Your task to perform on an android device: Open calendar and show me the third week of next month Image 0: 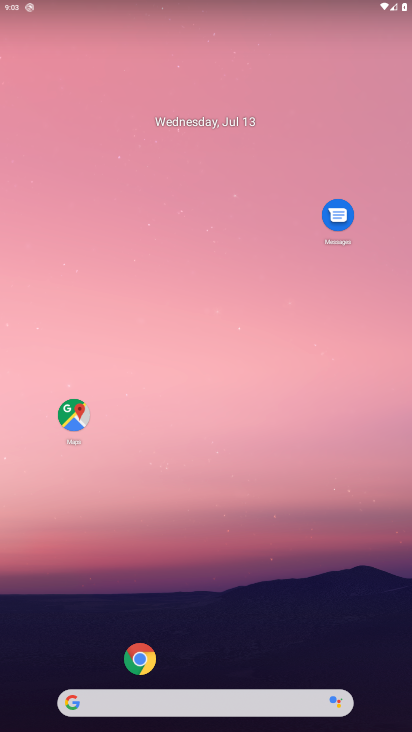
Step 0: drag from (29, 705) to (276, 57)
Your task to perform on an android device: Open calendar and show me the third week of next month Image 1: 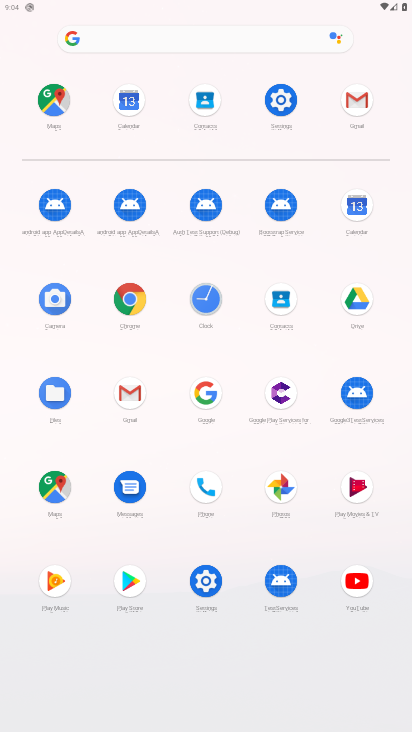
Step 1: click (363, 210)
Your task to perform on an android device: Open calendar and show me the third week of next month Image 2: 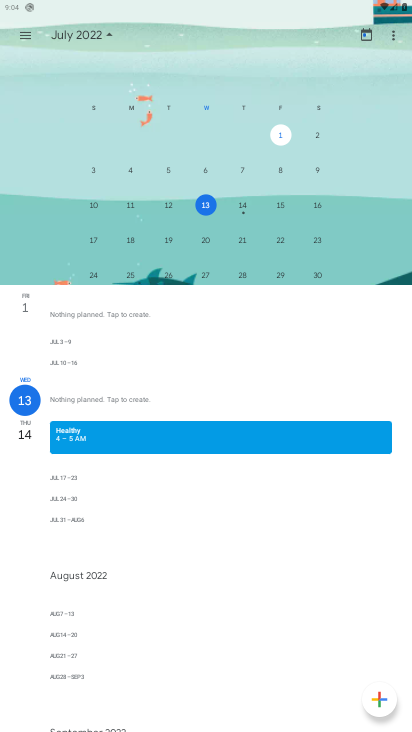
Step 2: drag from (388, 127) to (63, 154)
Your task to perform on an android device: Open calendar and show me the third week of next month Image 3: 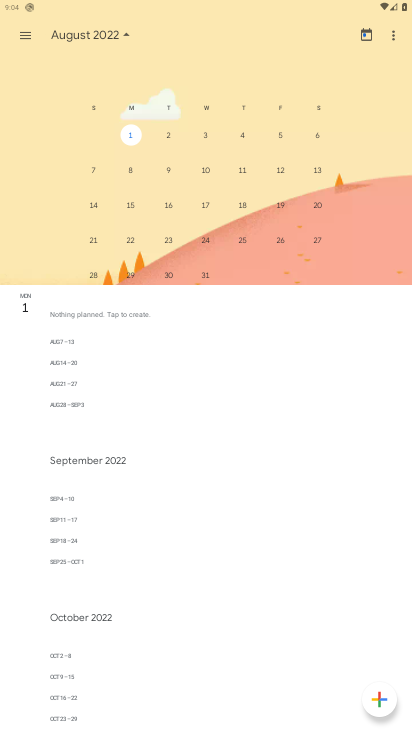
Step 3: click (131, 205)
Your task to perform on an android device: Open calendar and show me the third week of next month Image 4: 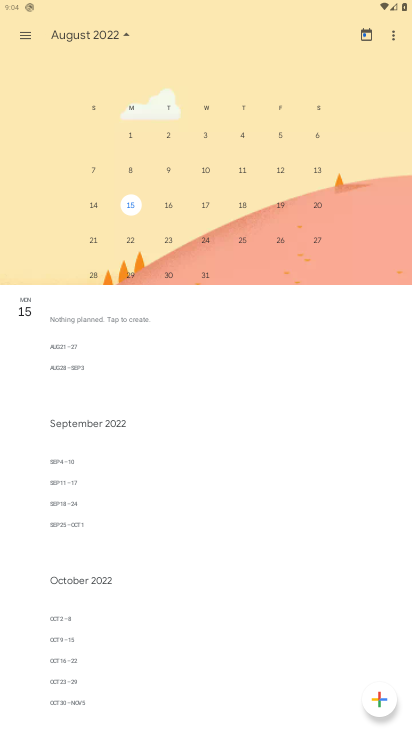
Step 4: task complete